Your task to perform on an android device: turn off sleep mode Image 0: 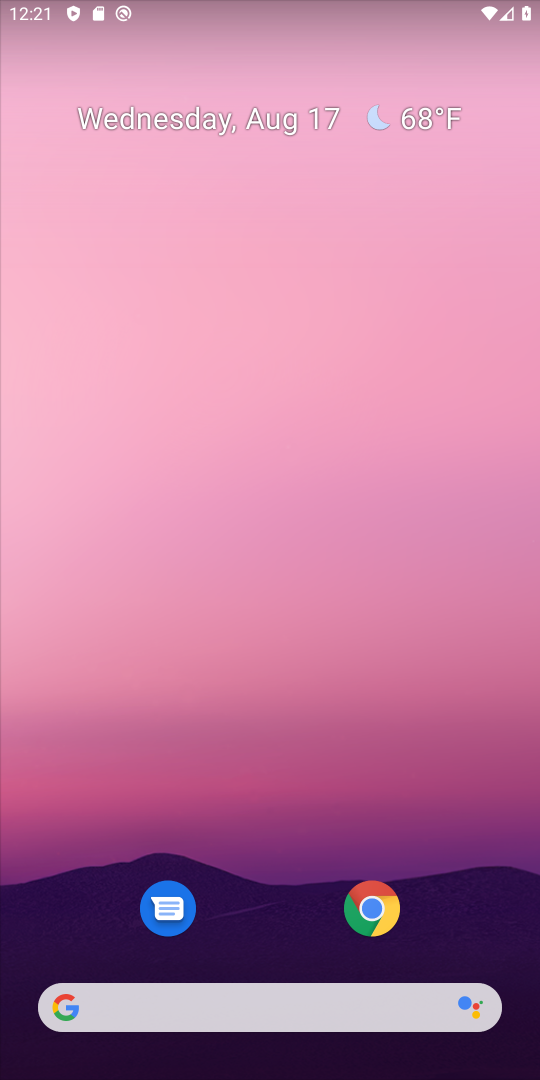
Step 0: drag from (269, 911) to (208, 363)
Your task to perform on an android device: turn off sleep mode Image 1: 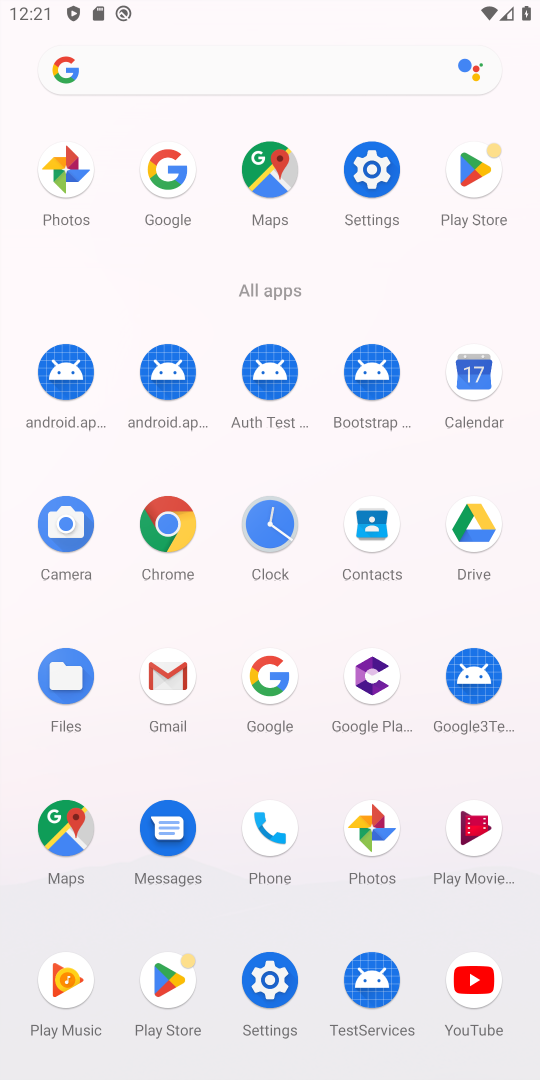
Step 1: click (371, 157)
Your task to perform on an android device: turn off sleep mode Image 2: 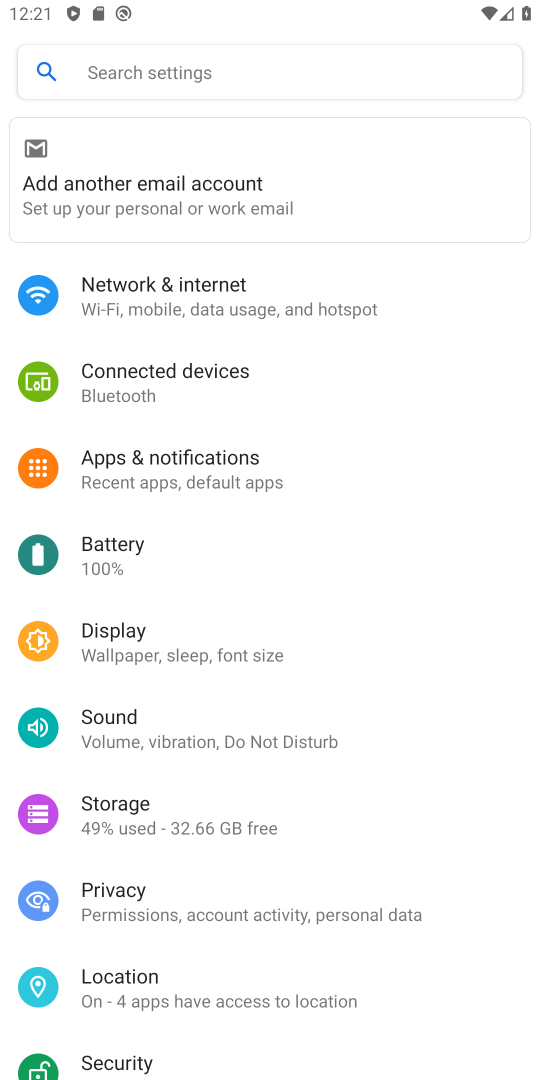
Step 2: click (127, 618)
Your task to perform on an android device: turn off sleep mode Image 3: 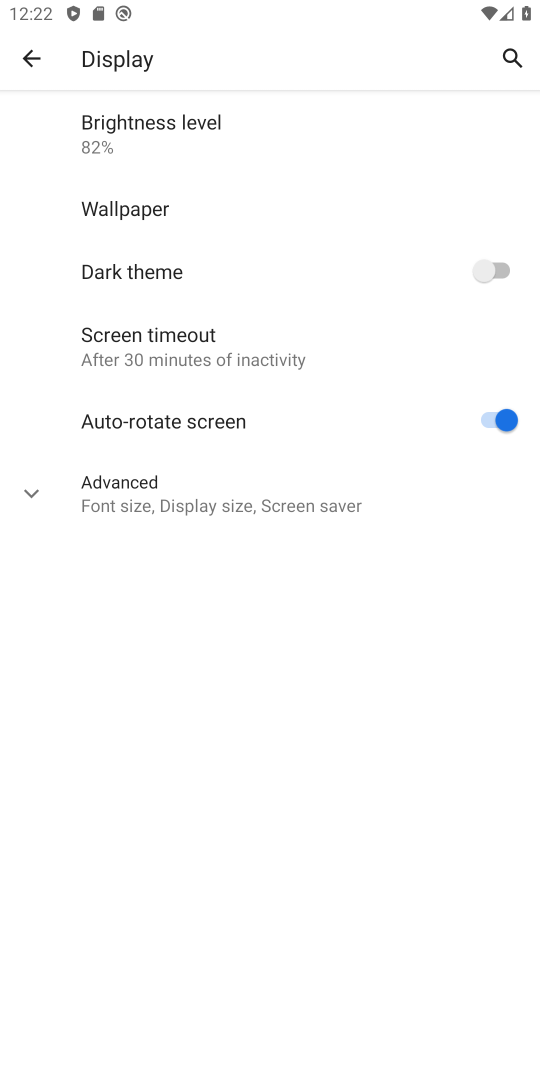
Step 3: click (166, 341)
Your task to perform on an android device: turn off sleep mode Image 4: 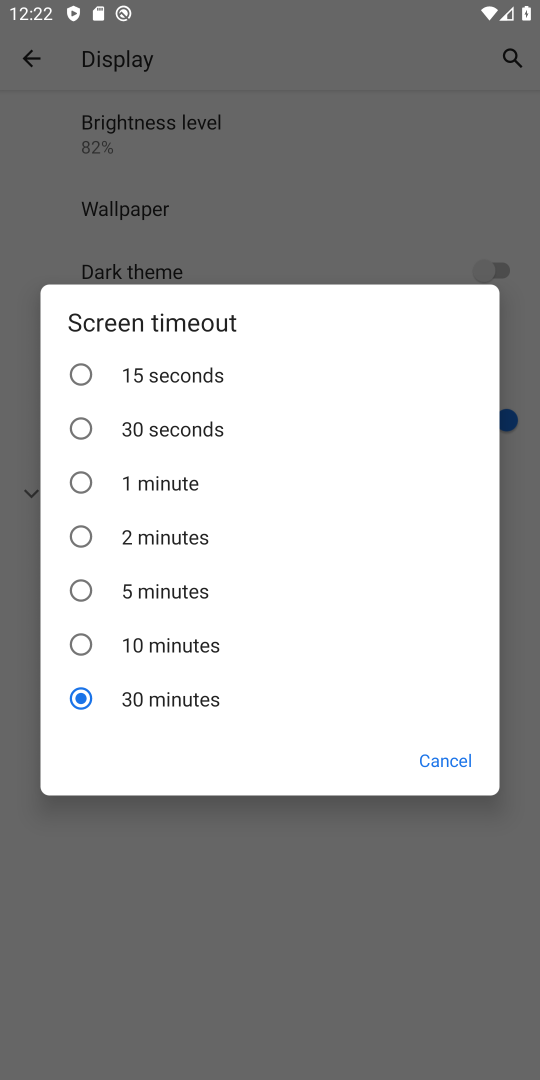
Step 4: click (156, 441)
Your task to perform on an android device: turn off sleep mode Image 5: 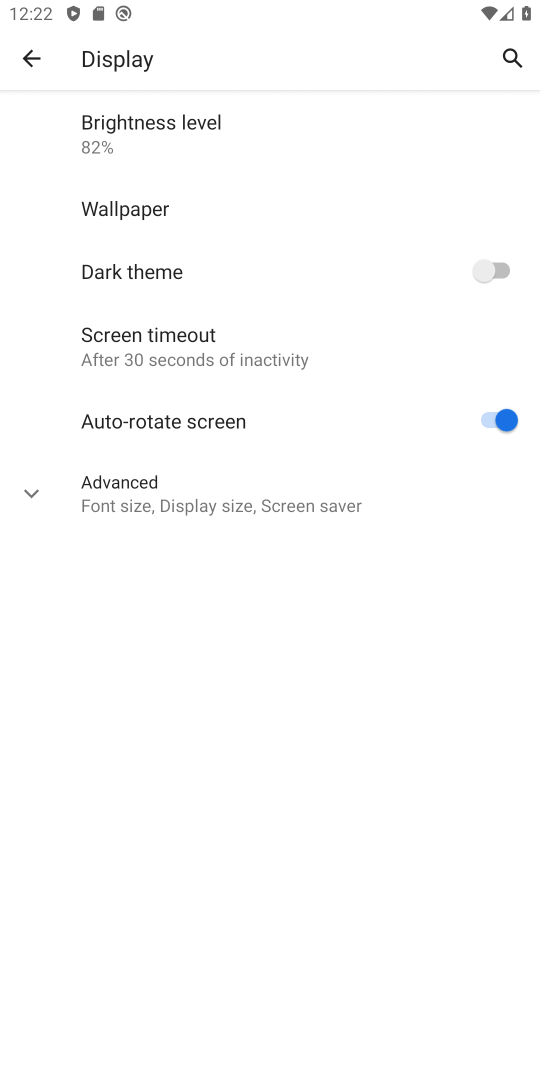
Step 5: task complete